Your task to perform on an android device: Open the phone app and click the voicemail tab. Image 0: 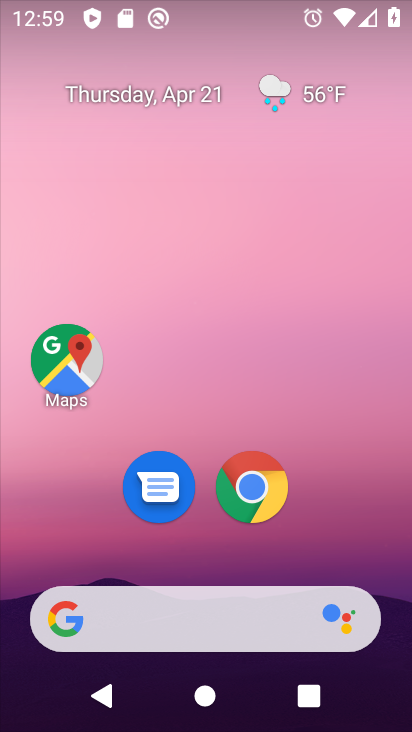
Step 0: drag from (319, 542) to (100, 96)
Your task to perform on an android device: Open the phone app and click the voicemail tab. Image 1: 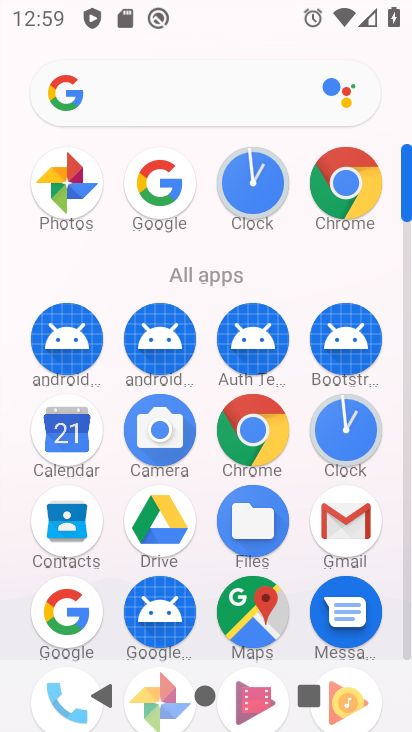
Step 1: drag from (110, 613) to (114, 368)
Your task to perform on an android device: Open the phone app and click the voicemail tab. Image 2: 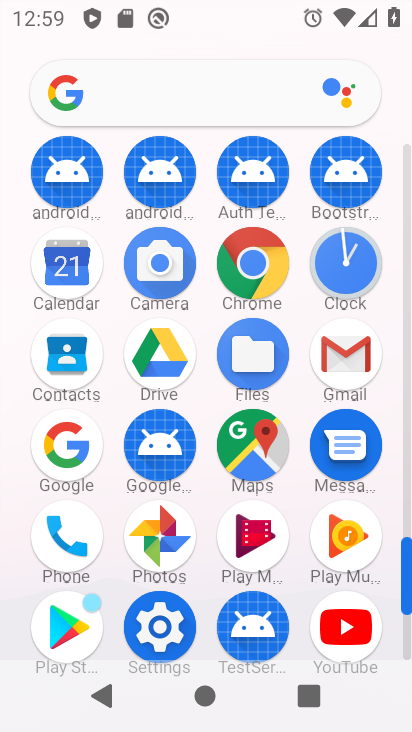
Step 2: click (68, 541)
Your task to perform on an android device: Open the phone app and click the voicemail tab. Image 3: 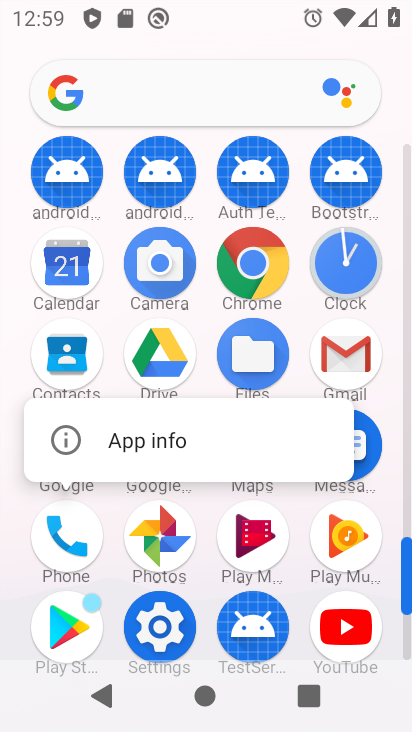
Step 3: click (73, 556)
Your task to perform on an android device: Open the phone app and click the voicemail tab. Image 4: 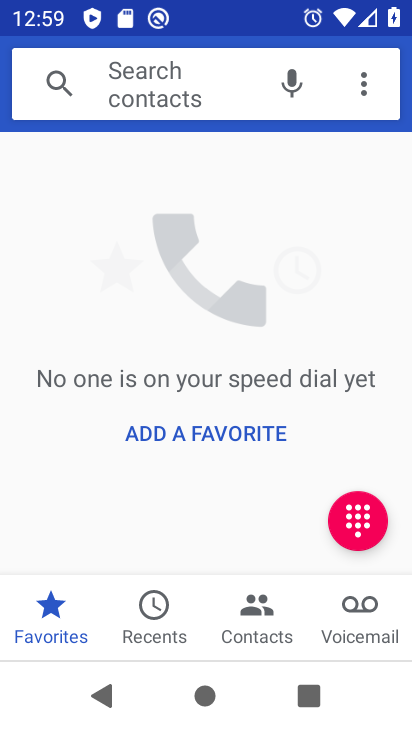
Step 4: click (333, 613)
Your task to perform on an android device: Open the phone app and click the voicemail tab. Image 5: 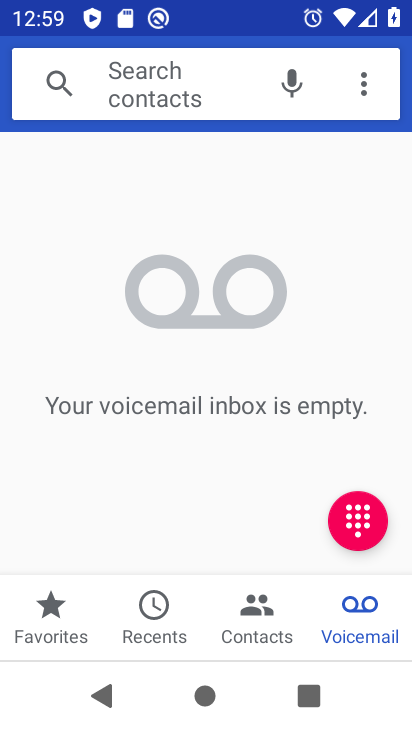
Step 5: task complete